Your task to perform on an android device: Open network settings Image 0: 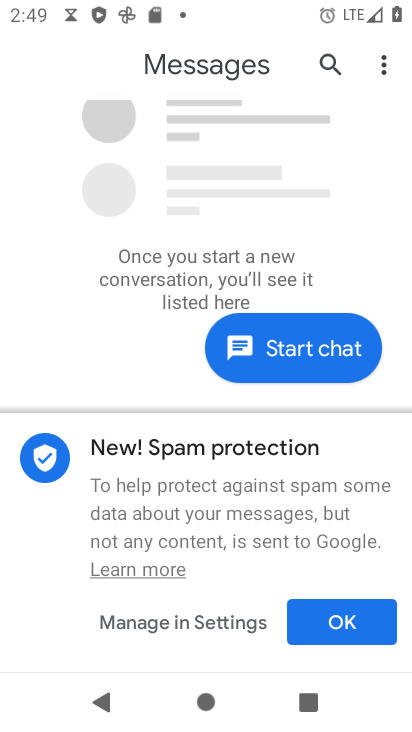
Step 0: press home button
Your task to perform on an android device: Open network settings Image 1: 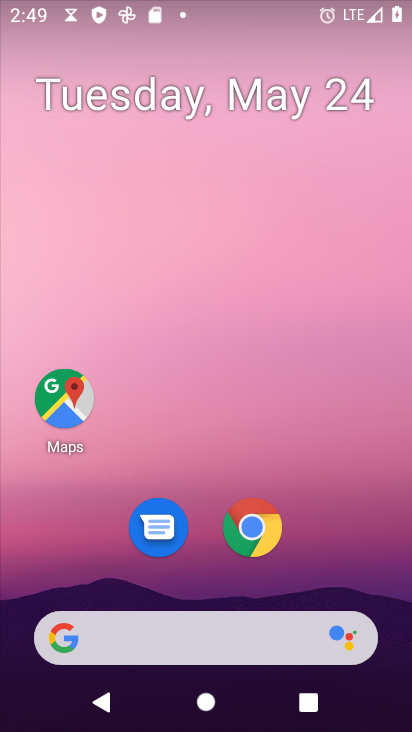
Step 1: drag from (227, 647) to (364, 112)
Your task to perform on an android device: Open network settings Image 2: 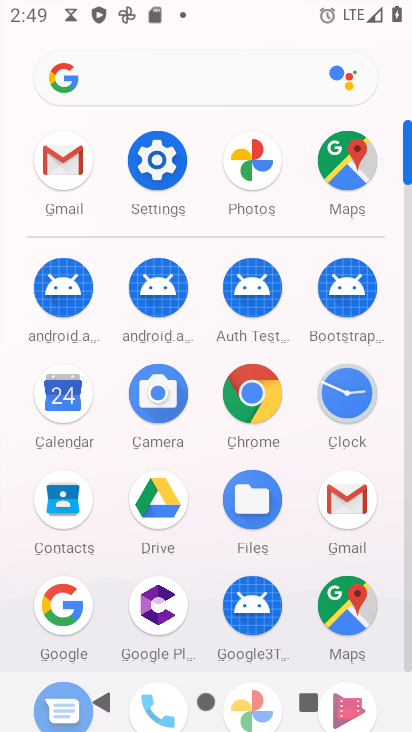
Step 2: click (147, 157)
Your task to perform on an android device: Open network settings Image 3: 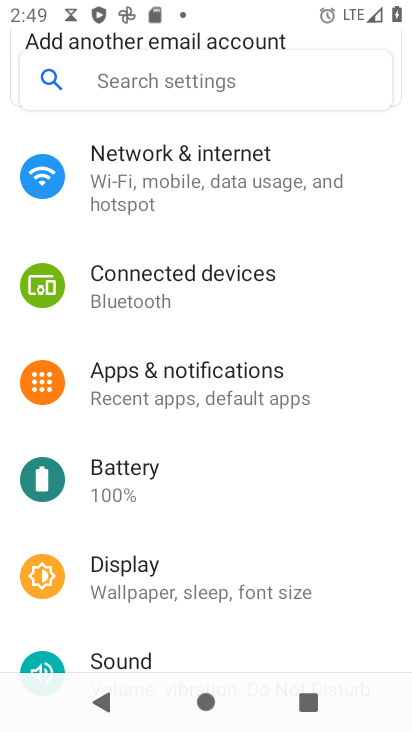
Step 3: click (248, 166)
Your task to perform on an android device: Open network settings Image 4: 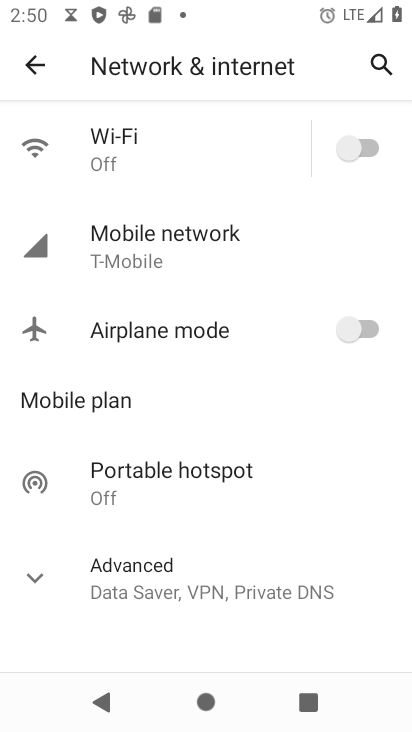
Step 4: task complete